Your task to perform on an android device: change your default location settings in chrome Image 0: 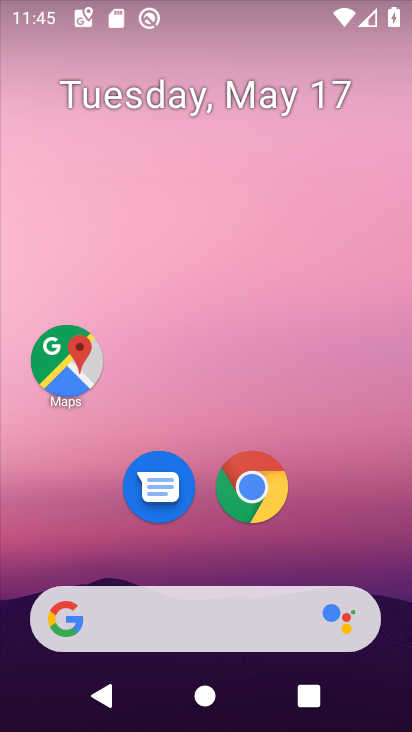
Step 0: click (255, 506)
Your task to perform on an android device: change your default location settings in chrome Image 1: 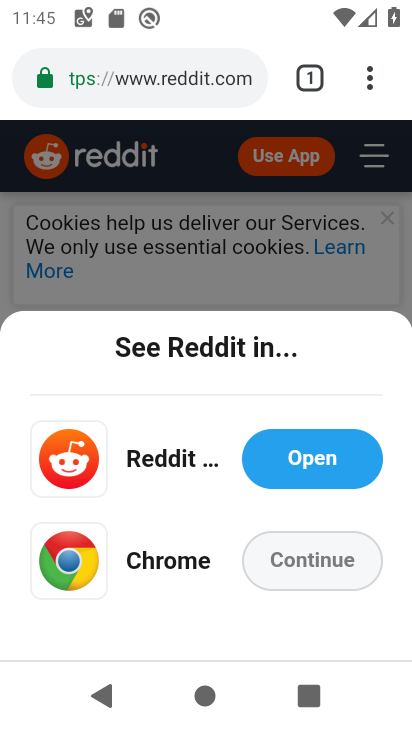
Step 1: click (372, 89)
Your task to perform on an android device: change your default location settings in chrome Image 2: 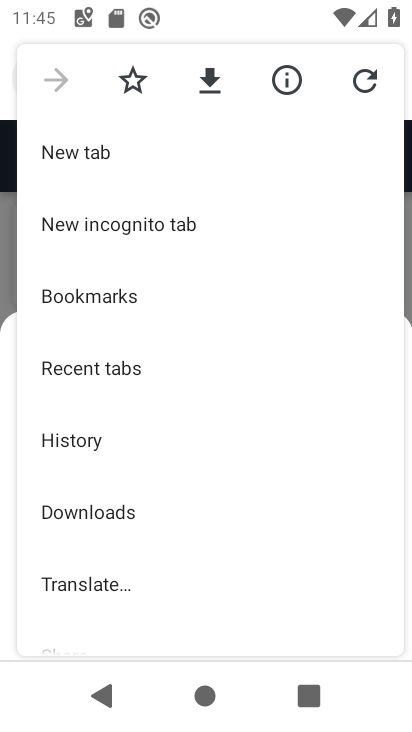
Step 2: click (409, 656)
Your task to perform on an android device: change your default location settings in chrome Image 3: 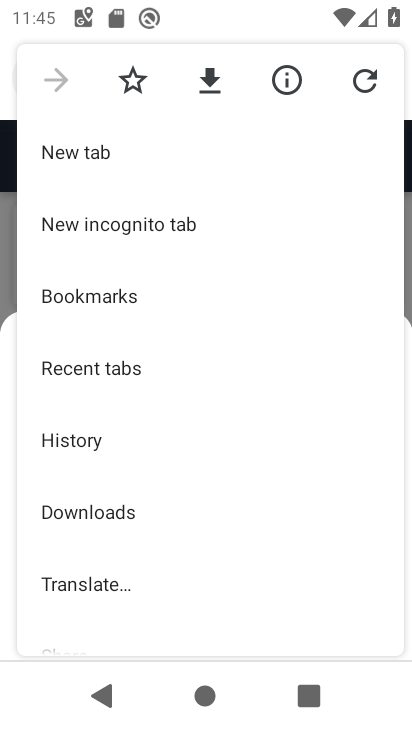
Step 3: click (409, 638)
Your task to perform on an android device: change your default location settings in chrome Image 4: 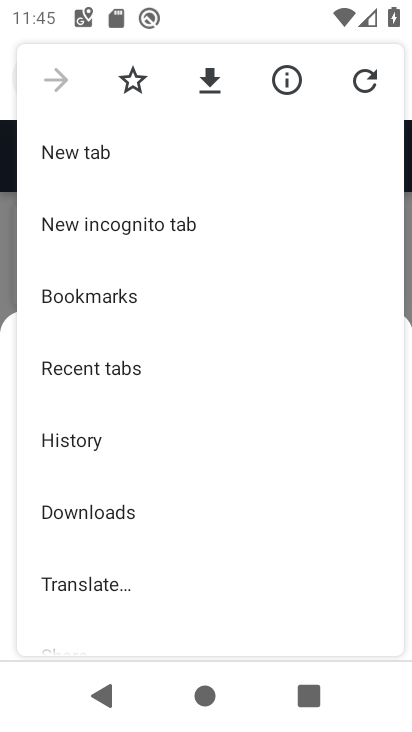
Step 4: drag from (200, 621) to (60, 100)
Your task to perform on an android device: change your default location settings in chrome Image 5: 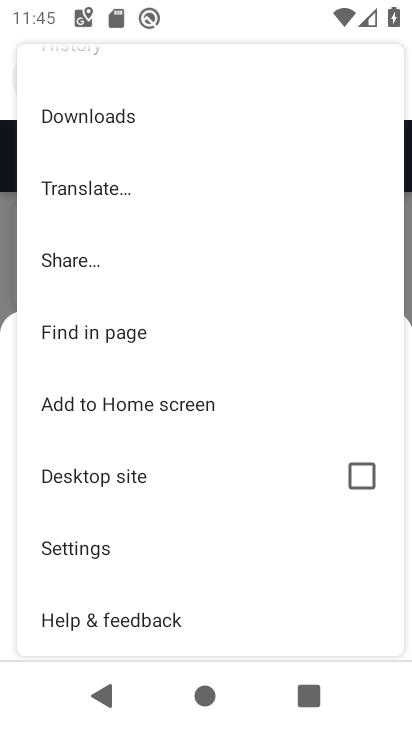
Step 5: click (173, 559)
Your task to perform on an android device: change your default location settings in chrome Image 6: 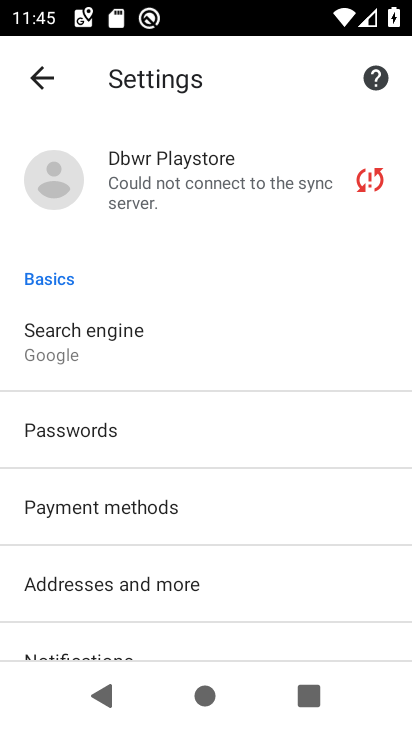
Step 6: drag from (189, 645) to (169, 294)
Your task to perform on an android device: change your default location settings in chrome Image 7: 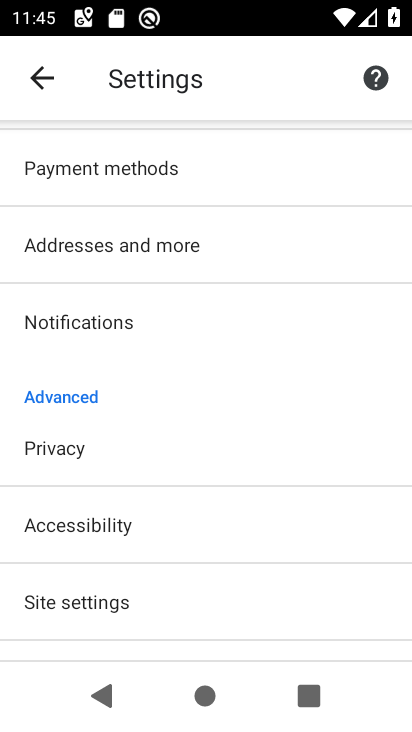
Step 7: click (187, 603)
Your task to perform on an android device: change your default location settings in chrome Image 8: 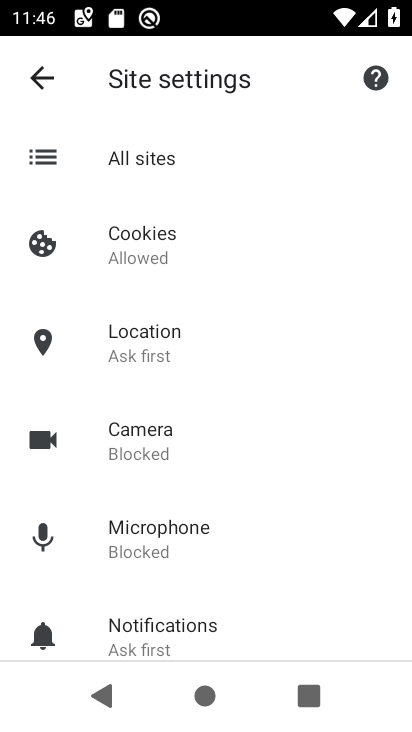
Step 8: click (220, 370)
Your task to perform on an android device: change your default location settings in chrome Image 9: 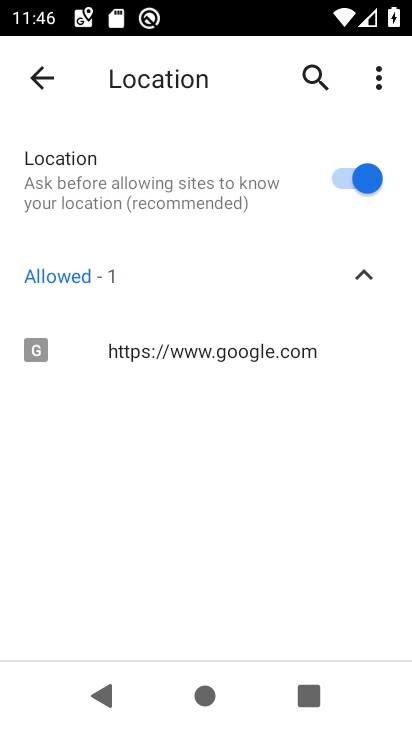
Step 9: task complete